Your task to perform on an android device: open device folders in google photos Image 0: 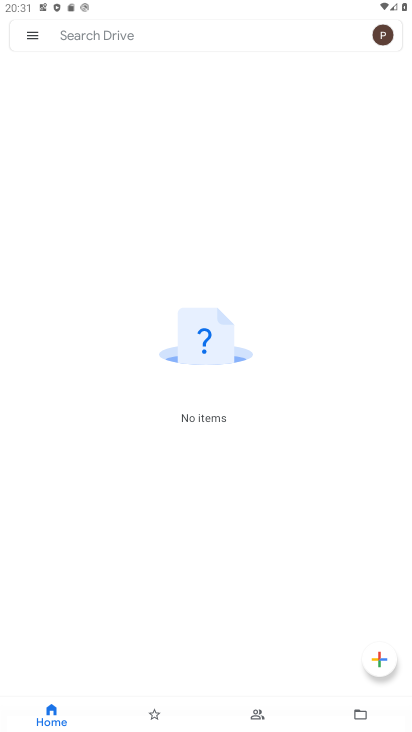
Step 0: press back button
Your task to perform on an android device: open device folders in google photos Image 1: 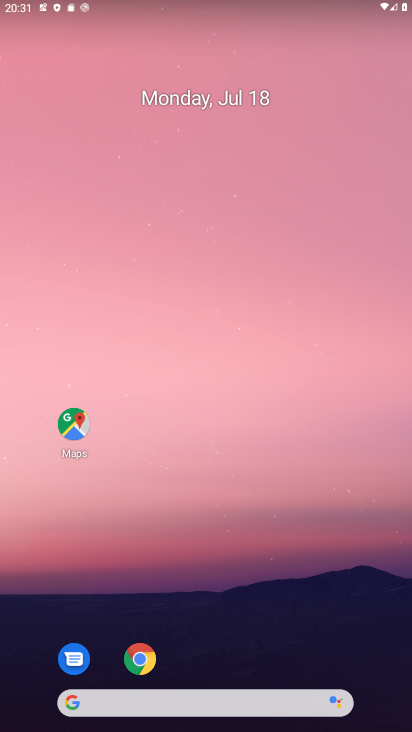
Step 1: drag from (242, 570) to (180, 31)
Your task to perform on an android device: open device folders in google photos Image 2: 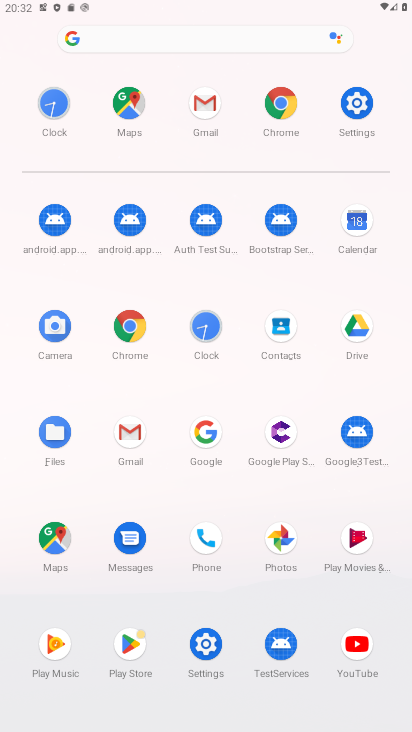
Step 2: click (207, 436)
Your task to perform on an android device: open device folders in google photos Image 3: 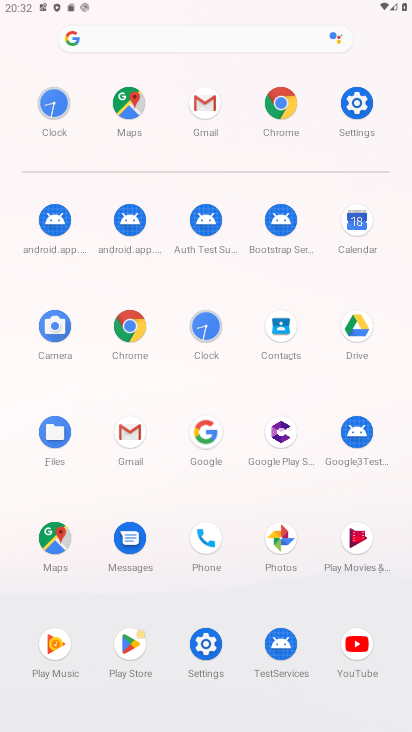
Step 3: click (207, 436)
Your task to perform on an android device: open device folders in google photos Image 4: 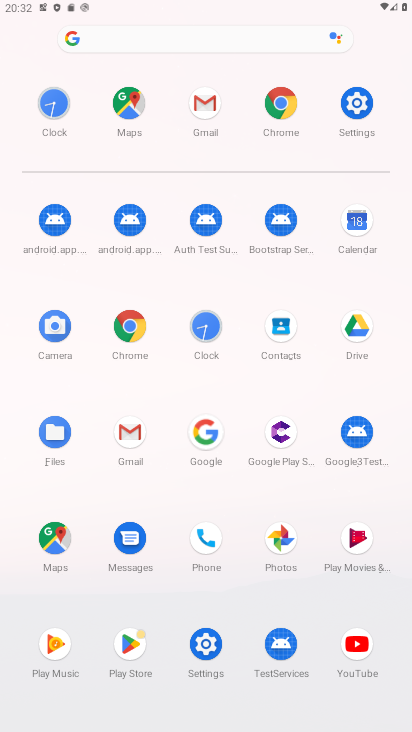
Step 4: click (207, 436)
Your task to perform on an android device: open device folders in google photos Image 5: 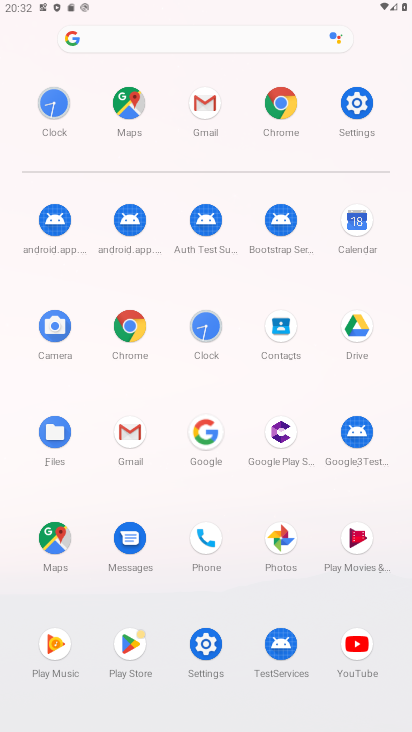
Step 5: click (206, 436)
Your task to perform on an android device: open device folders in google photos Image 6: 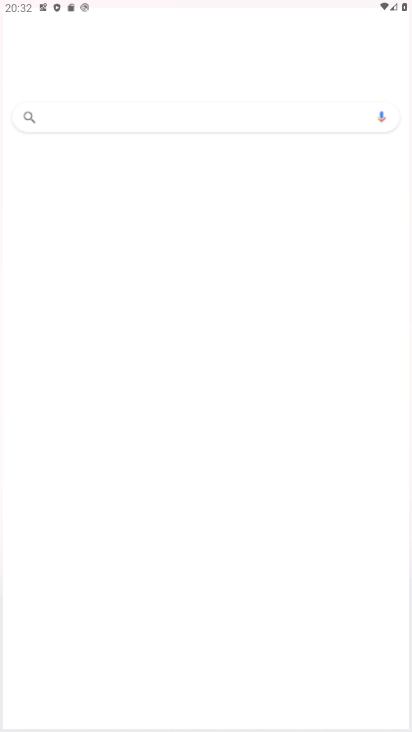
Step 6: click (204, 437)
Your task to perform on an android device: open device folders in google photos Image 7: 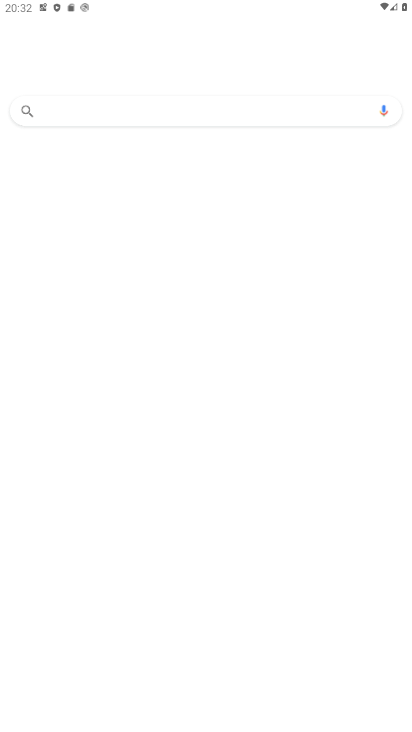
Step 7: click (204, 437)
Your task to perform on an android device: open device folders in google photos Image 8: 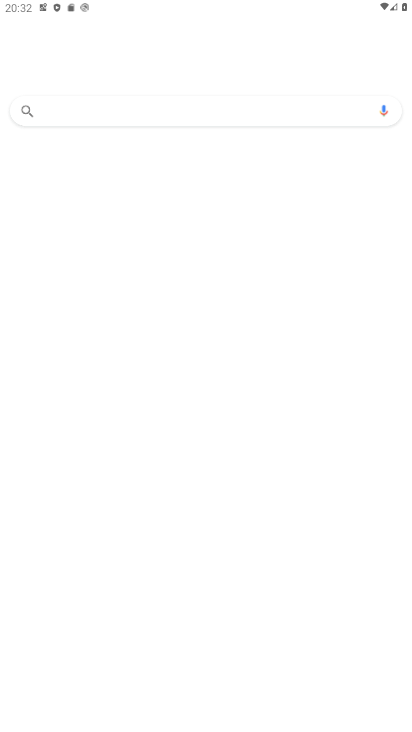
Step 8: click (206, 438)
Your task to perform on an android device: open device folders in google photos Image 9: 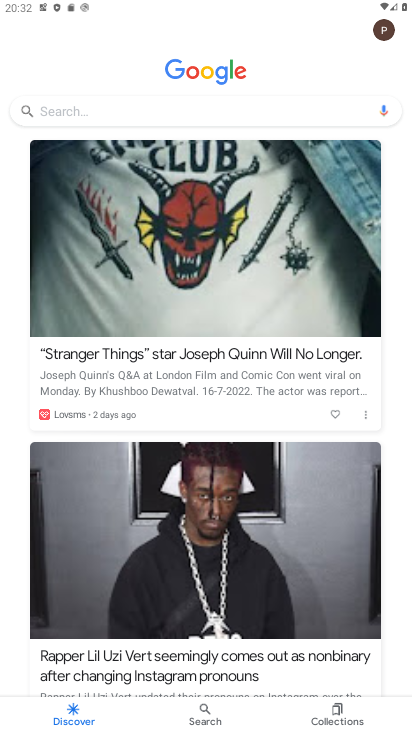
Step 9: press back button
Your task to perform on an android device: open device folders in google photos Image 10: 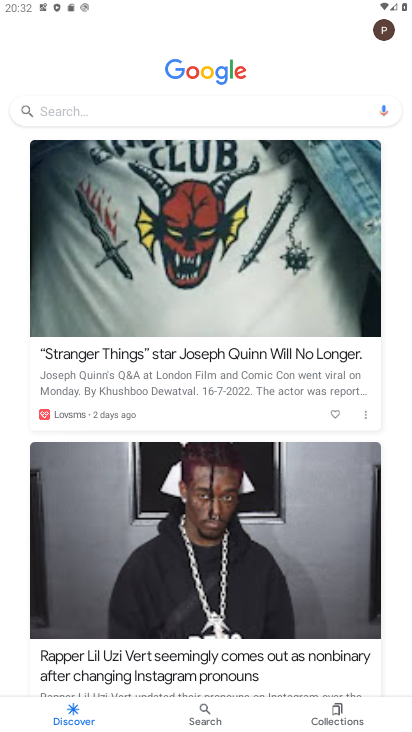
Step 10: press back button
Your task to perform on an android device: open device folders in google photos Image 11: 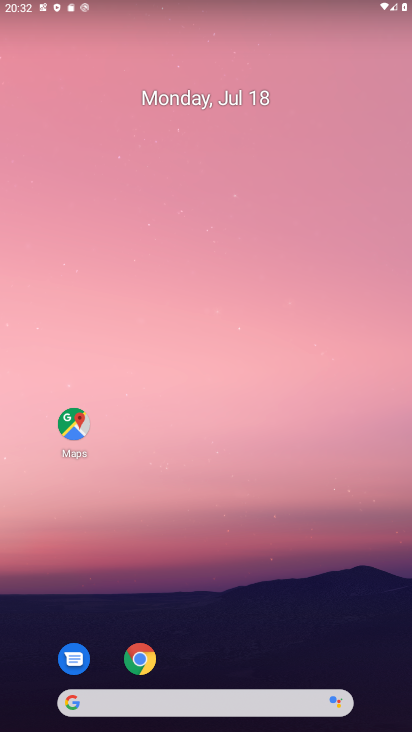
Step 11: drag from (162, 368) to (131, 1)
Your task to perform on an android device: open device folders in google photos Image 12: 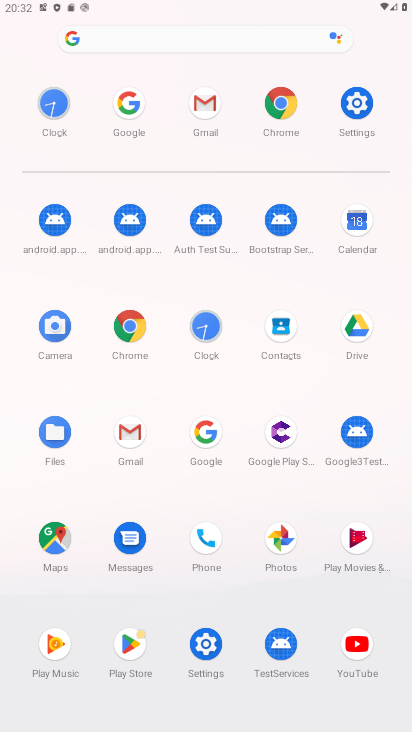
Step 12: click (283, 525)
Your task to perform on an android device: open device folders in google photos Image 13: 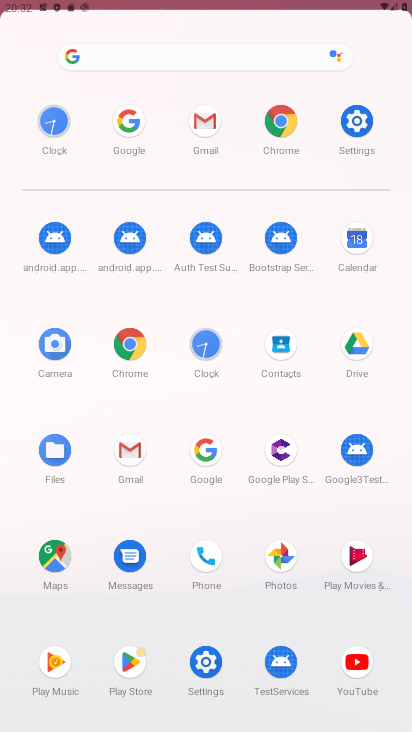
Step 13: click (283, 548)
Your task to perform on an android device: open device folders in google photos Image 14: 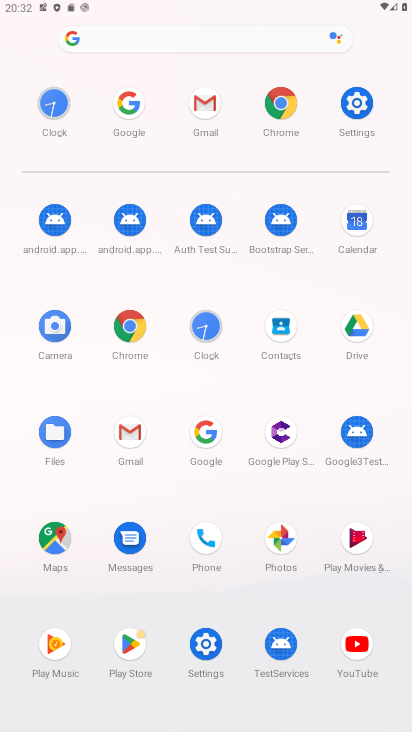
Step 14: click (283, 548)
Your task to perform on an android device: open device folders in google photos Image 15: 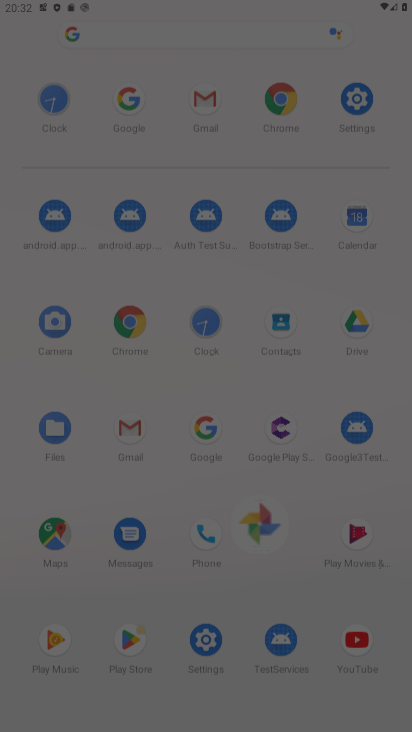
Step 15: click (284, 549)
Your task to perform on an android device: open device folders in google photos Image 16: 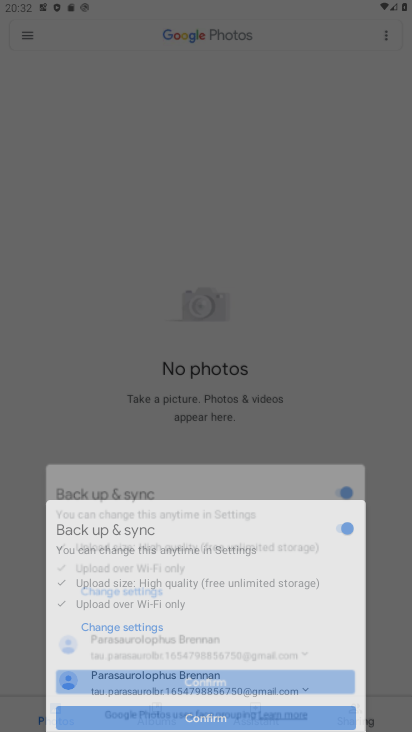
Step 16: click (284, 552)
Your task to perform on an android device: open device folders in google photos Image 17: 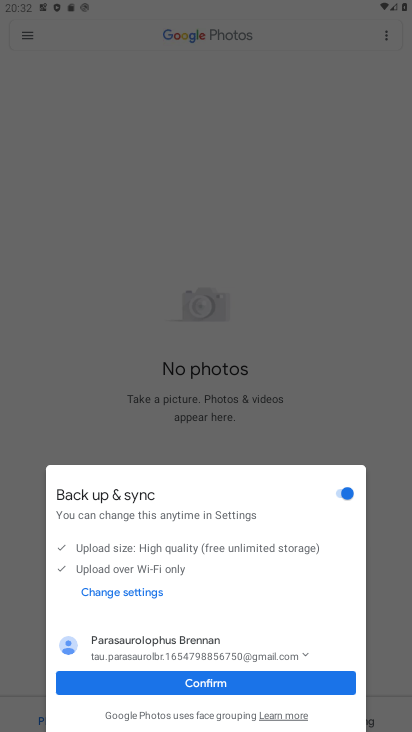
Step 17: click (102, 290)
Your task to perform on an android device: open device folders in google photos Image 18: 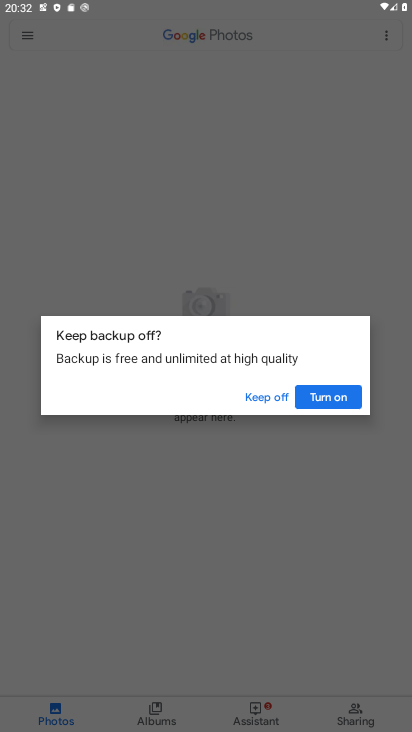
Step 18: click (102, 290)
Your task to perform on an android device: open device folders in google photos Image 19: 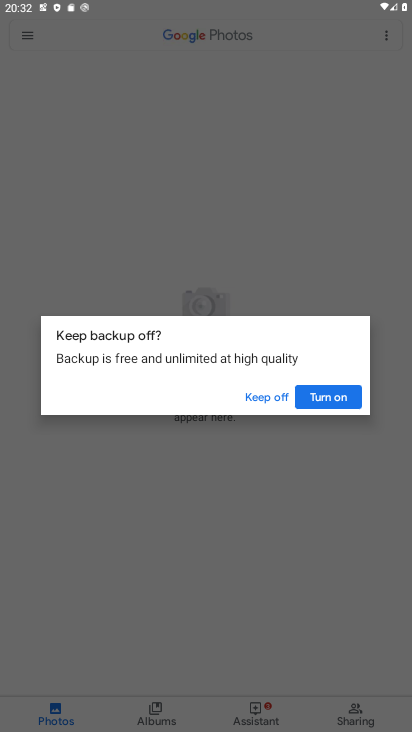
Step 19: click (267, 398)
Your task to perform on an android device: open device folders in google photos Image 20: 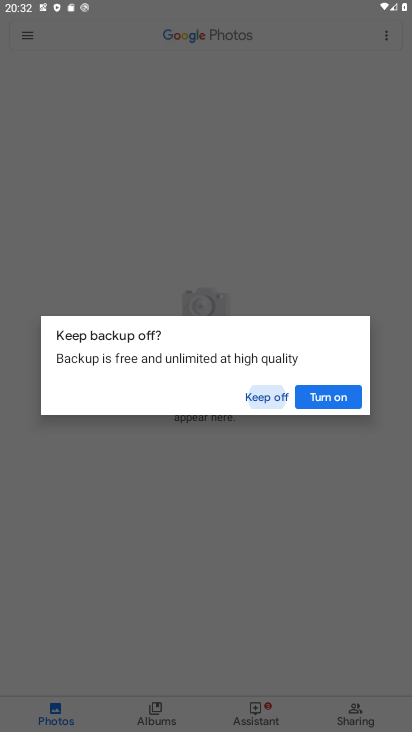
Step 20: click (267, 397)
Your task to perform on an android device: open device folders in google photos Image 21: 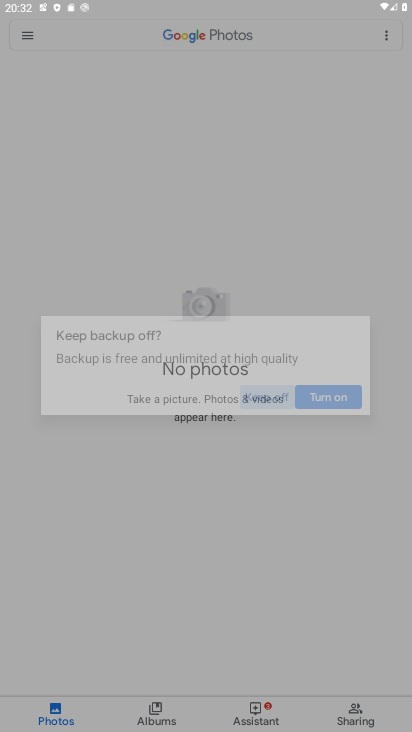
Step 21: click (269, 385)
Your task to perform on an android device: open device folders in google photos Image 22: 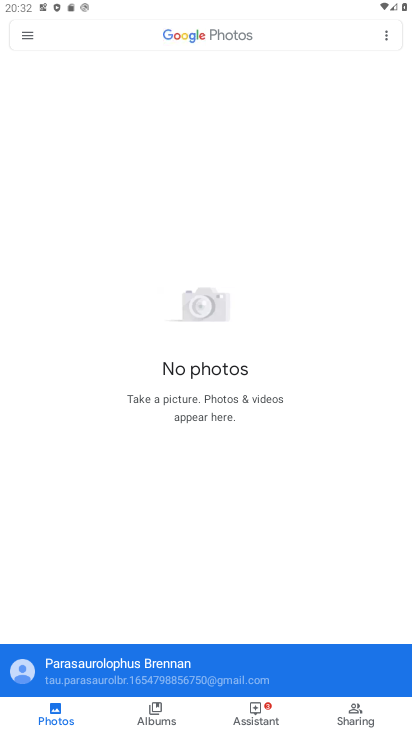
Step 22: click (26, 35)
Your task to perform on an android device: open device folders in google photos Image 23: 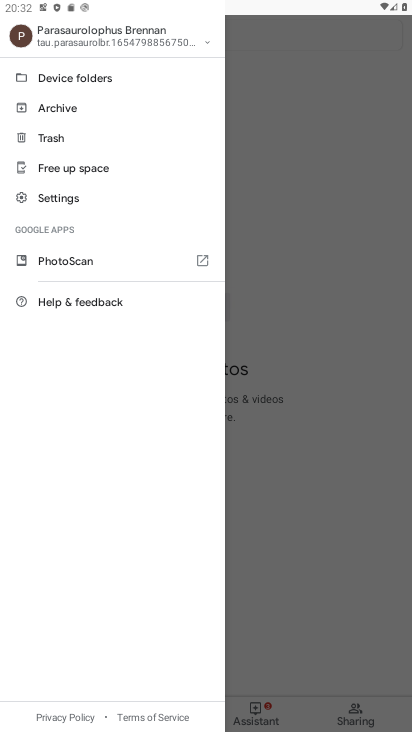
Step 23: click (69, 73)
Your task to perform on an android device: open device folders in google photos Image 24: 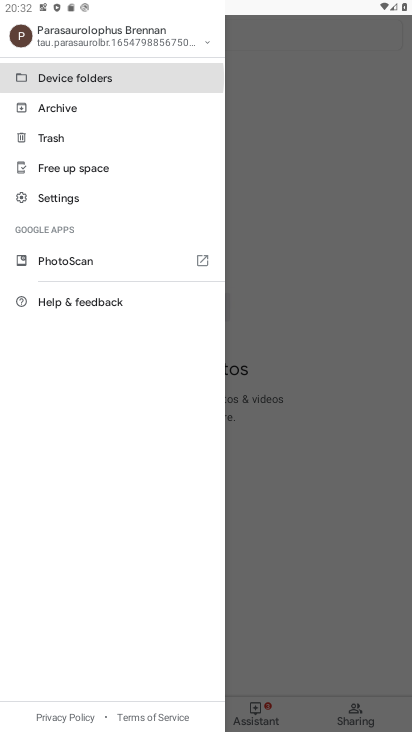
Step 24: click (69, 73)
Your task to perform on an android device: open device folders in google photos Image 25: 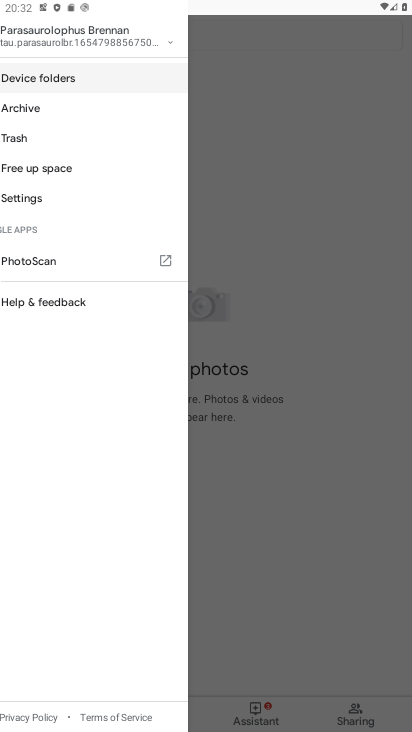
Step 25: click (69, 73)
Your task to perform on an android device: open device folders in google photos Image 26: 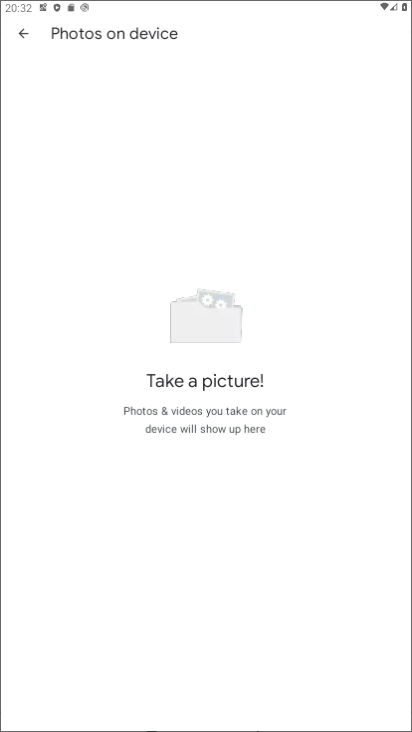
Step 26: click (69, 73)
Your task to perform on an android device: open device folders in google photos Image 27: 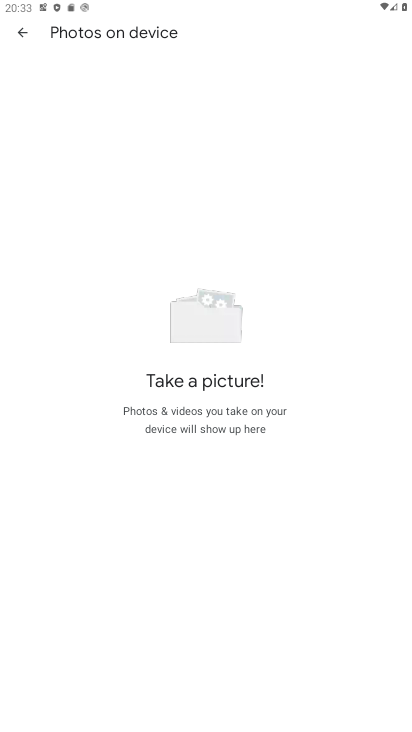
Step 27: task complete